Your task to perform on an android device: open app "Spotify: Music and Podcasts" (install if not already installed) and enter user name: "principled@inbox.com" and password: "arrests" Image 0: 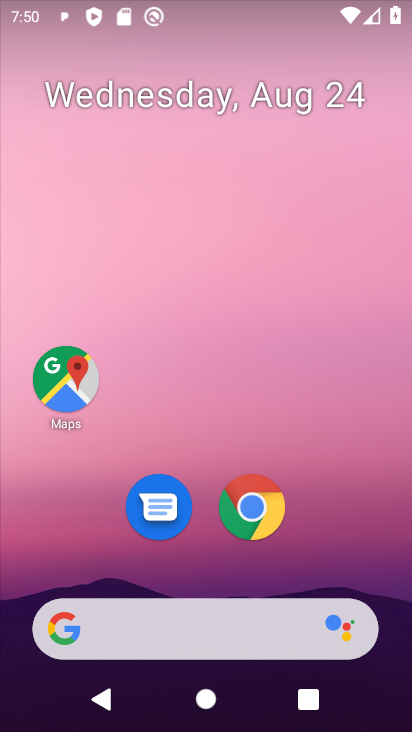
Step 0: press home button
Your task to perform on an android device: open app "Spotify: Music and Podcasts" (install if not already installed) and enter user name: "principled@inbox.com" and password: "arrests" Image 1: 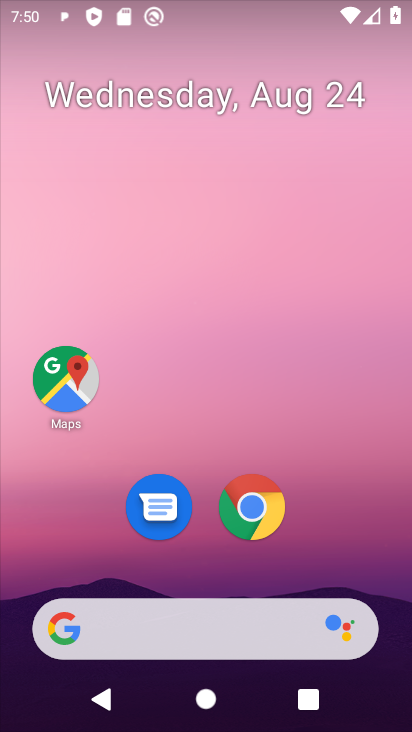
Step 1: drag from (384, 553) to (367, 79)
Your task to perform on an android device: open app "Spotify: Music and Podcasts" (install if not already installed) and enter user name: "principled@inbox.com" and password: "arrests" Image 2: 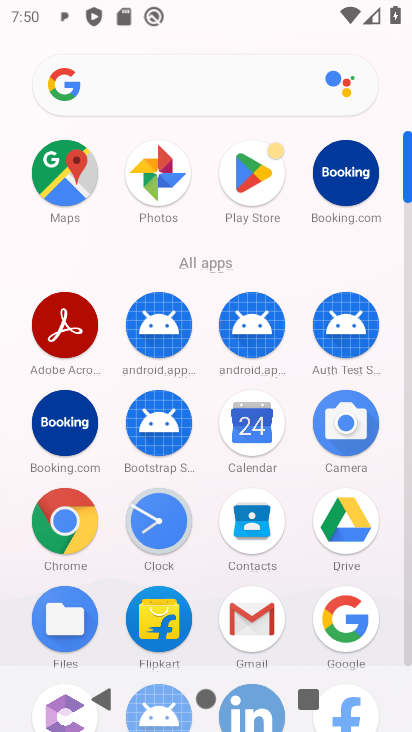
Step 2: click (250, 182)
Your task to perform on an android device: open app "Spotify: Music and Podcasts" (install if not already installed) and enter user name: "principled@inbox.com" and password: "arrests" Image 3: 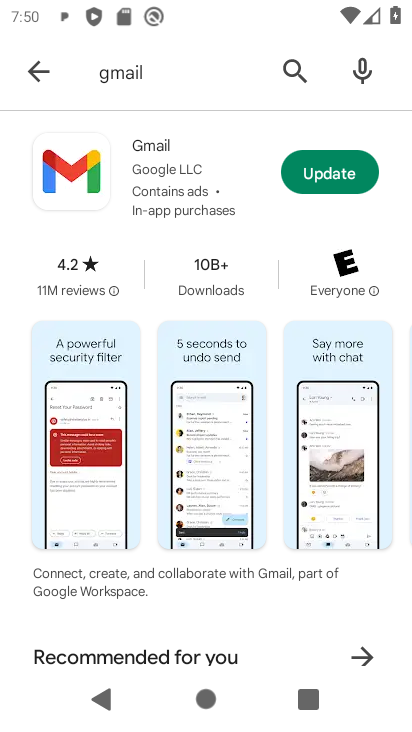
Step 3: press back button
Your task to perform on an android device: open app "Spotify: Music and Podcasts" (install if not already installed) and enter user name: "principled@inbox.com" and password: "arrests" Image 4: 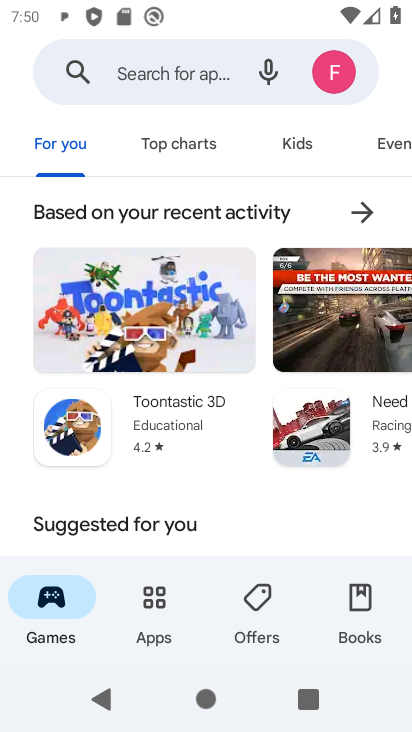
Step 4: click (171, 74)
Your task to perform on an android device: open app "Spotify: Music and Podcasts" (install if not already installed) and enter user name: "principled@inbox.com" and password: "arrests" Image 5: 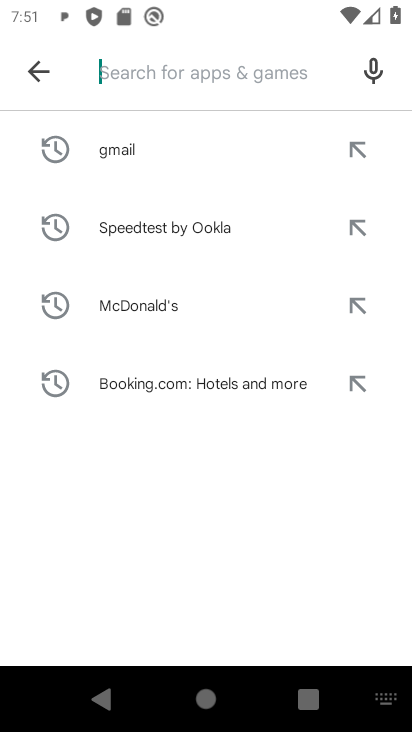
Step 5: type "Spotify: Music and Podcasts"
Your task to perform on an android device: open app "Spotify: Music and Podcasts" (install if not already installed) and enter user name: "principled@inbox.com" and password: "arrests" Image 6: 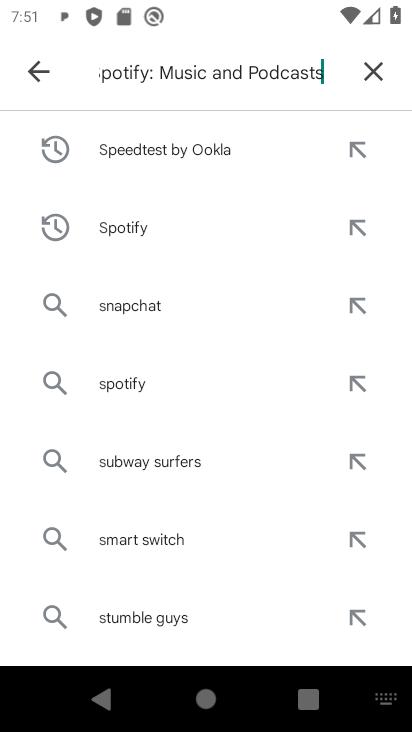
Step 6: press enter
Your task to perform on an android device: open app "Spotify: Music and Podcasts" (install if not already installed) and enter user name: "principled@inbox.com" and password: "arrests" Image 7: 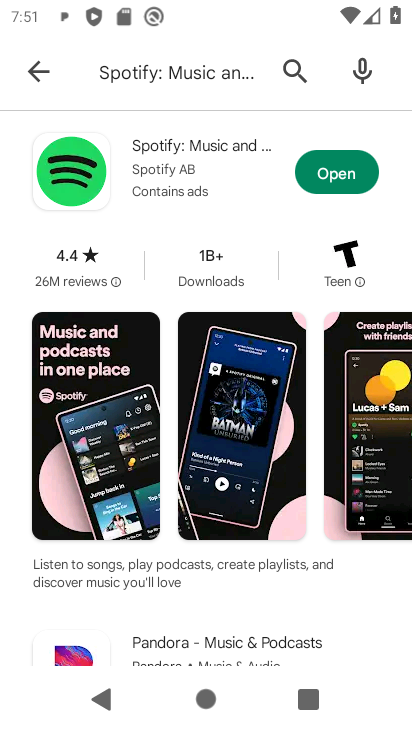
Step 7: click (329, 170)
Your task to perform on an android device: open app "Spotify: Music and Podcasts" (install if not already installed) and enter user name: "principled@inbox.com" and password: "arrests" Image 8: 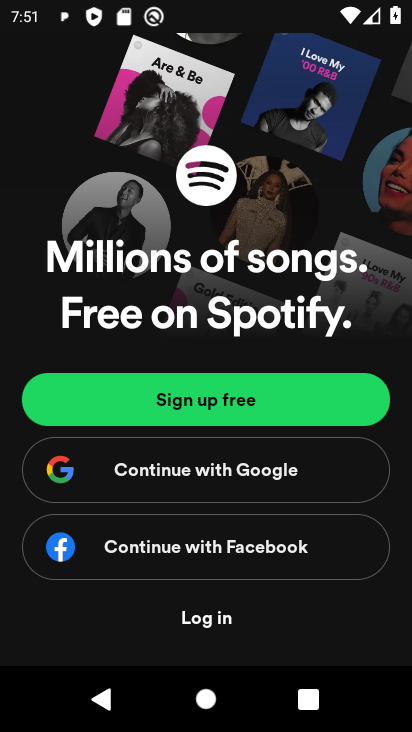
Step 8: click (213, 619)
Your task to perform on an android device: open app "Spotify: Music and Podcasts" (install if not already installed) and enter user name: "principled@inbox.com" and password: "arrests" Image 9: 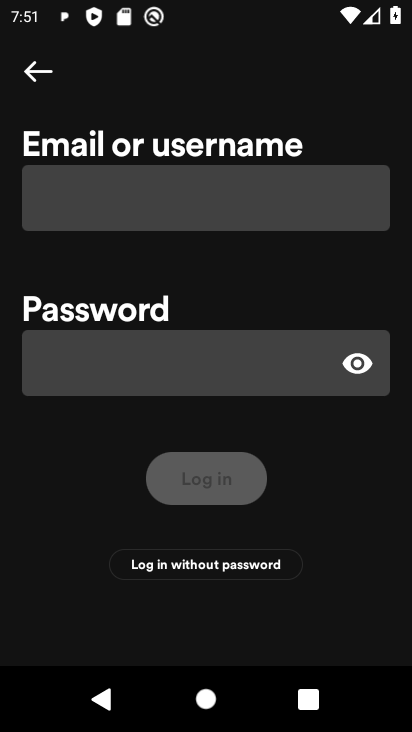
Step 9: click (189, 193)
Your task to perform on an android device: open app "Spotify: Music and Podcasts" (install if not already installed) and enter user name: "principled@inbox.com" and password: "arrests" Image 10: 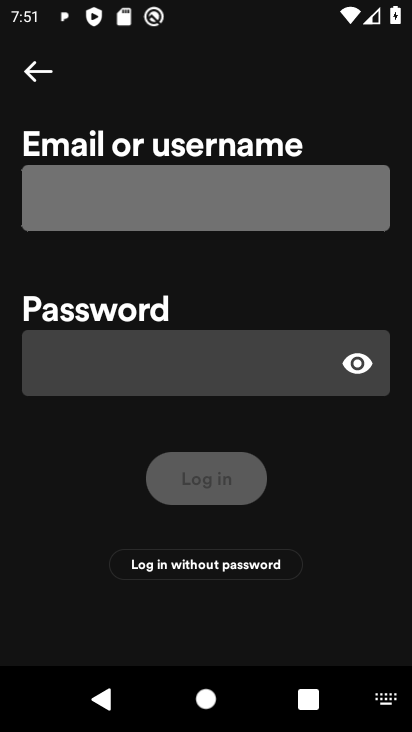
Step 10: type "principled@inbox.com"
Your task to perform on an android device: open app "Spotify: Music and Podcasts" (install if not already installed) and enter user name: "principled@inbox.com" and password: "arrests" Image 11: 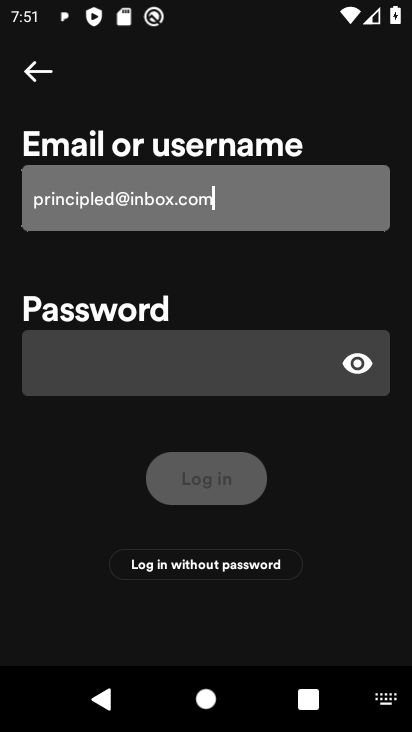
Step 11: press enter
Your task to perform on an android device: open app "Spotify: Music and Podcasts" (install if not already installed) and enter user name: "principled@inbox.com" and password: "arrests" Image 12: 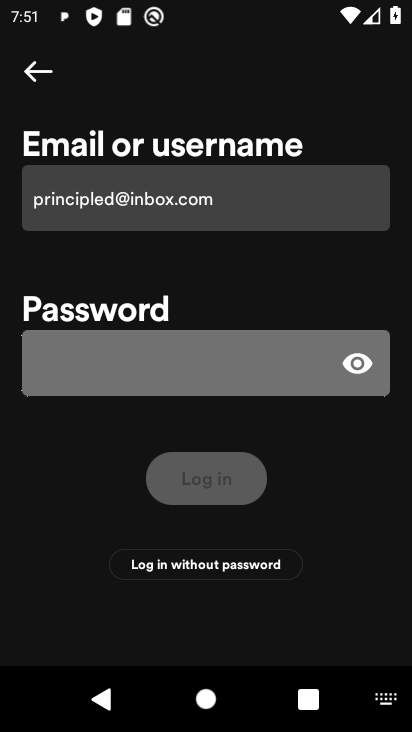
Step 12: type "arrests"
Your task to perform on an android device: open app "Spotify: Music and Podcasts" (install if not already installed) and enter user name: "principled@inbox.com" and password: "arrests" Image 13: 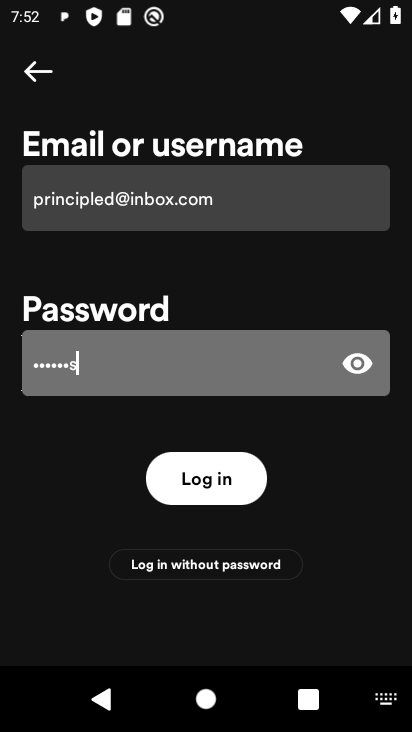
Step 13: press enter
Your task to perform on an android device: open app "Spotify: Music and Podcasts" (install if not already installed) and enter user name: "principled@inbox.com" and password: "arrests" Image 14: 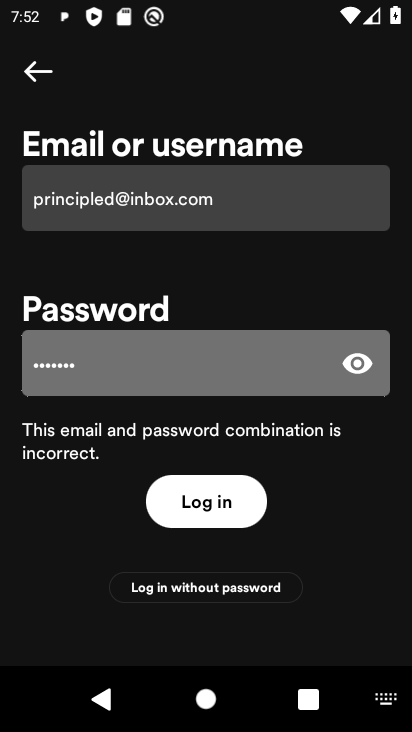
Step 14: task complete